Your task to perform on an android device: Open Chrome and go to the settings page Image 0: 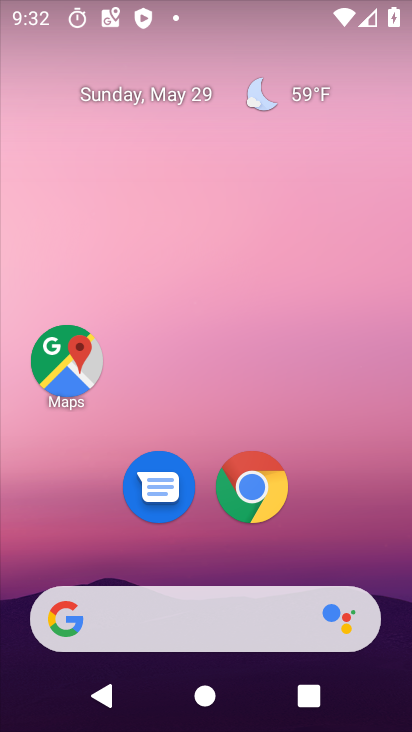
Step 0: click (262, 501)
Your task to perform on an android device: Open Chrome and go to the settings page Image 1: 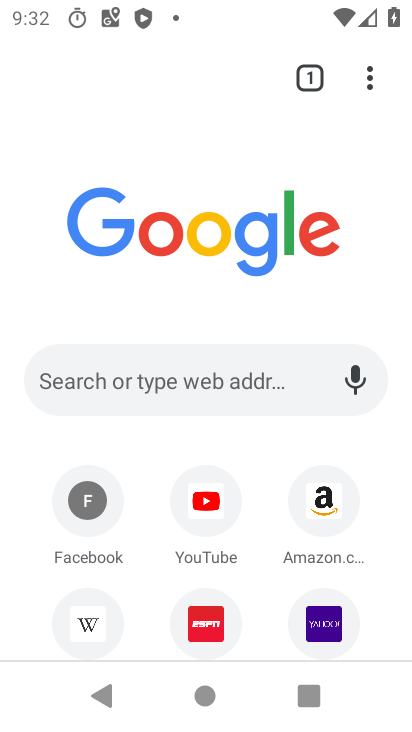
Step 1: click (365, 72)
Your task to perform on an android device: Open Chrome and go to the settings page Image 2: 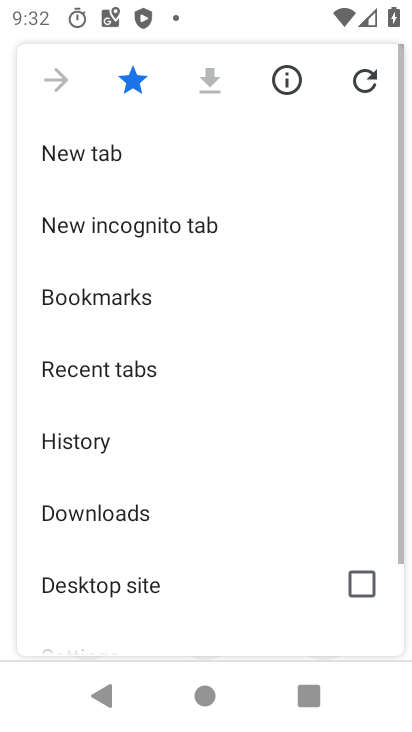
Step 2: drag from (180, 585) to (114, 167)
Your task to perform on an android device: Open Chrome and go to the settings page Image 3: 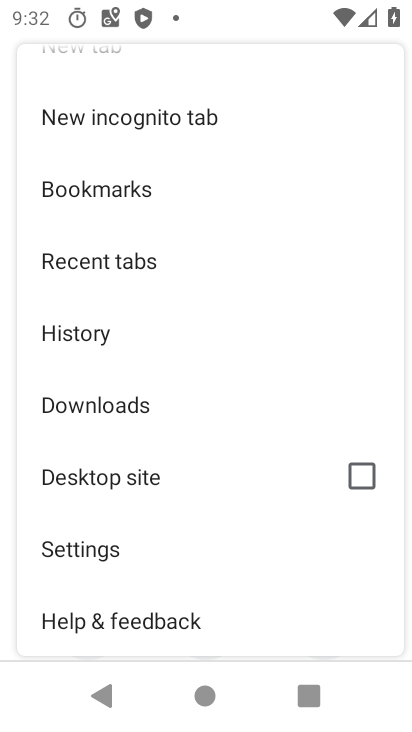
Step 3: click (79, 552)
Your task to perform on an android device: Open Chrome and go to the settings page Image 4: 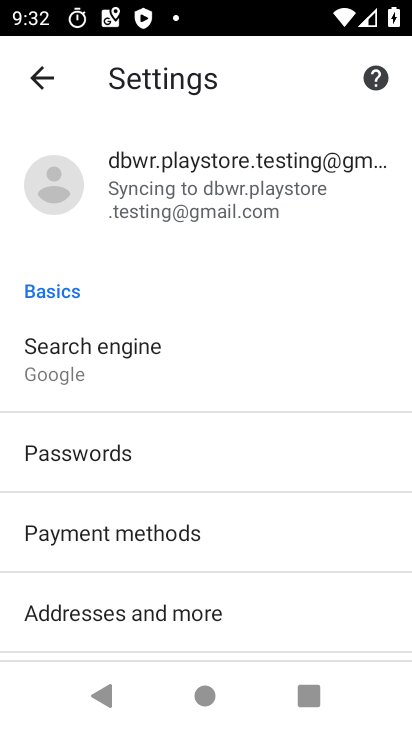
Step 4: task complete